Your task to perform on an android device: check out phone information Image 0: 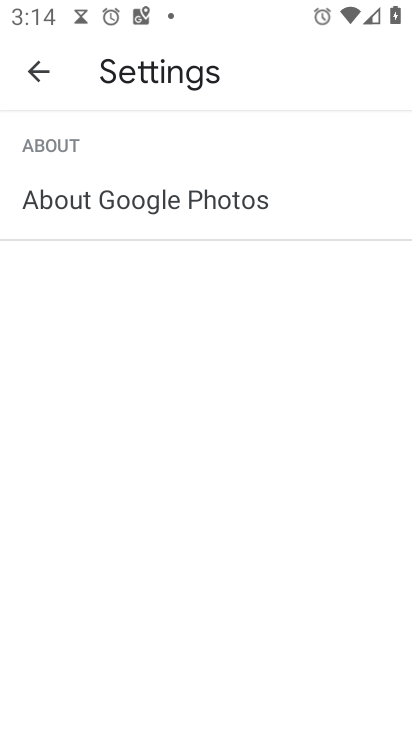
Step 0: press back button
Your task to perform on an android device: check out phone information Image 1: 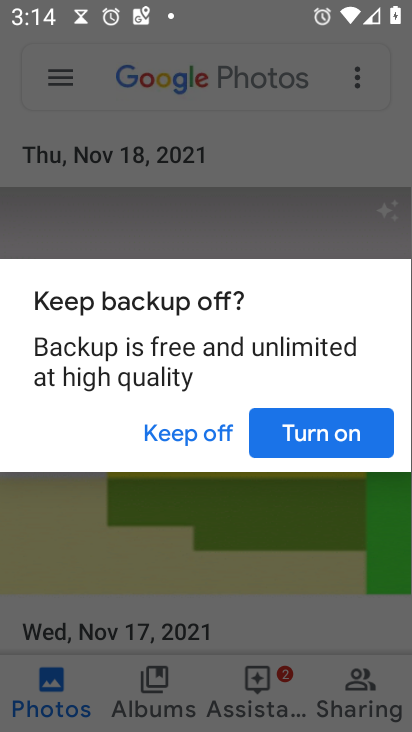
Step 1: press home button
Your task to perform on an android device: check out phone information Image 2: 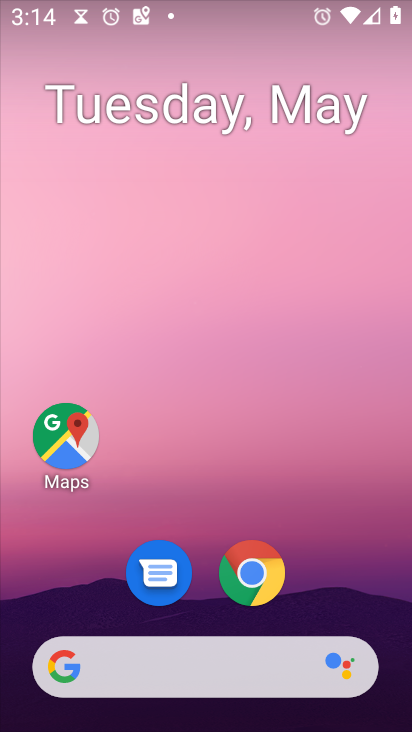
Step 2: drag from (358, 554) to (235, 11)
Your task to perform on an android device: check out phone information Image 3: 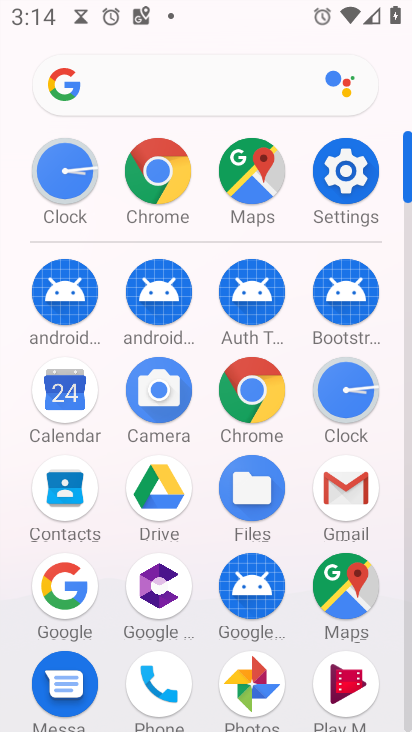
Step 3: click (348, 164)
Your task to perform on an android device: check out phone information Image 4: 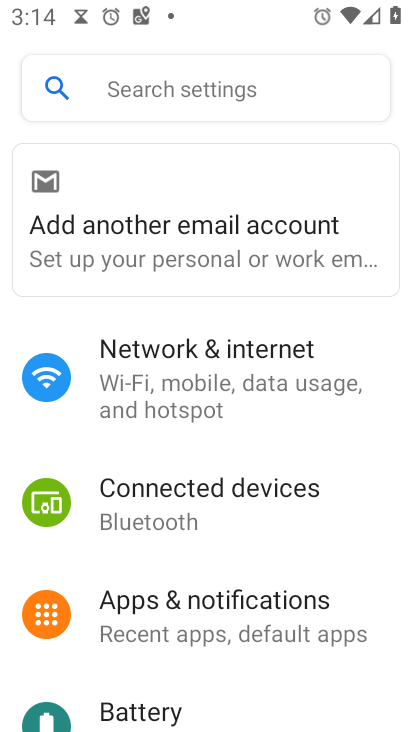
Step 4: drag from (273, 514) to (270, 121)
Your task to perform on an android device: check out phone information Image 5: 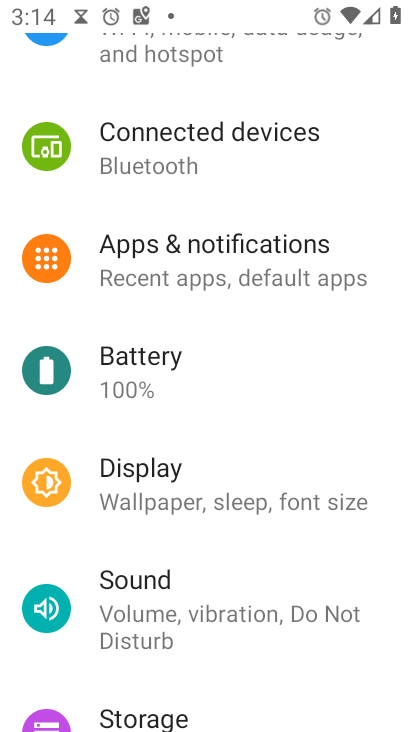
Step 5: drag from (275, 629) to (271, 89)
Your task to perform on an android device: check out phone information Image 6: 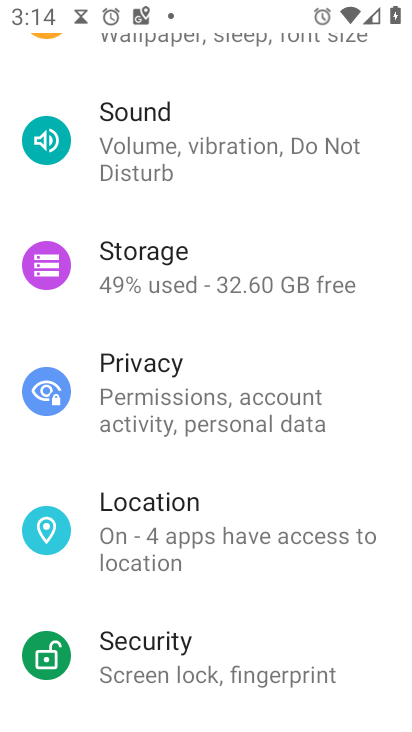
Step 6: drag from (267, 652) to (266, 177)
Your task to perform on an android device: check out phone information Image 7: 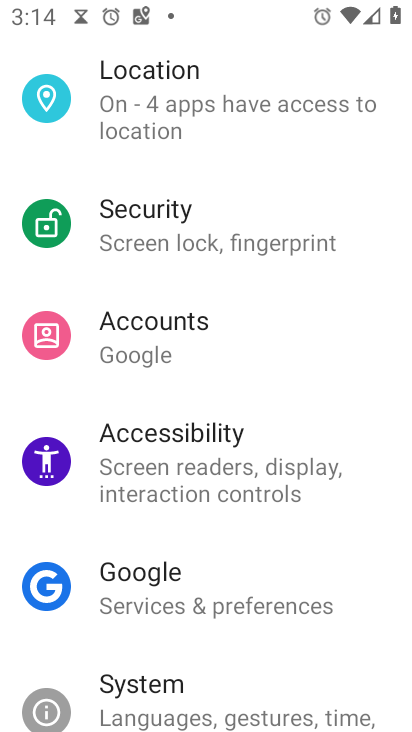
Step 7: drag from (260, 626) to (260, 189)
Your task to perform on an android device: check out phone information Image 8: 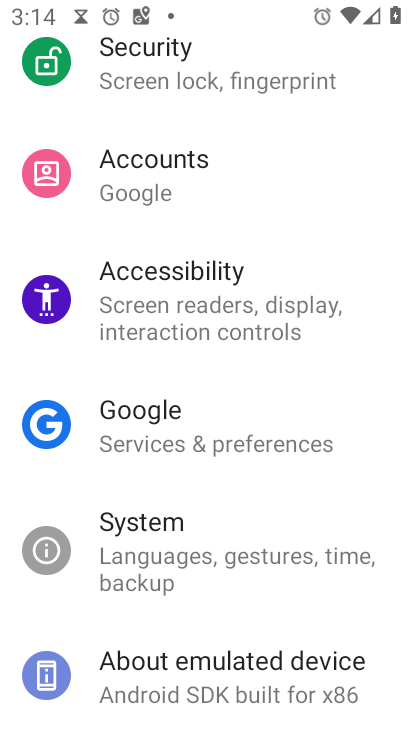
Step 8: click (219, 666)
Your task to perform on an android device: check out phone information Image 9: 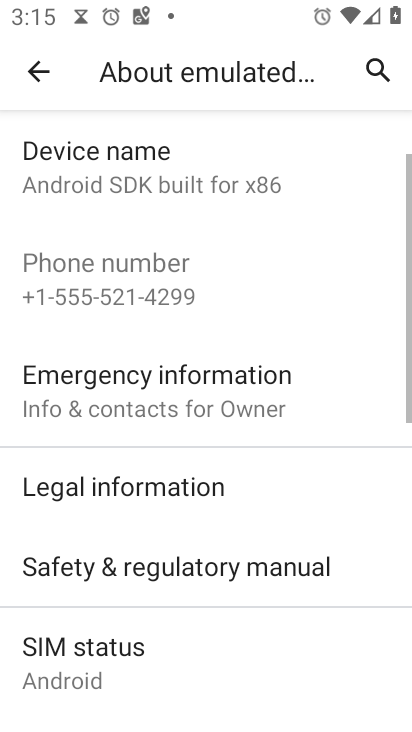
Step 9: task complete